Your task to perform on an android device: toggle pop-ups in chrome Image 0: 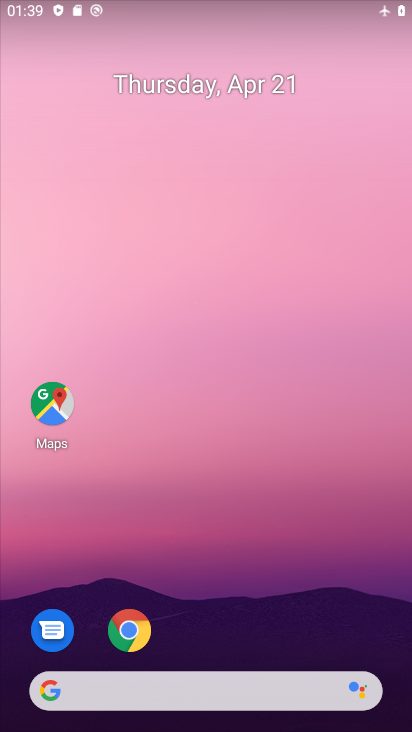
Step 0: click (139, 626)
Your task to perform on an android device: toggle pop-ups in chrome Image 1: 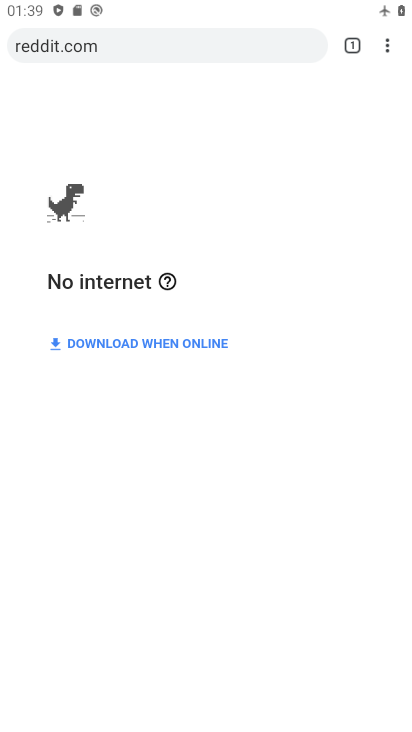
Step 1: click (397, 50)
Your task to perform on an android device: toggle pop-ups in chrome Image 2: 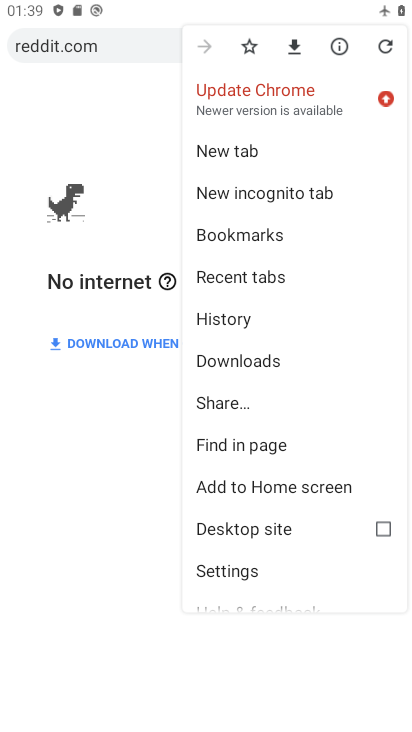
Step 2: click (217, 570)
Your task to perform on an android device: toggle pop-ups in chrome Image 3: 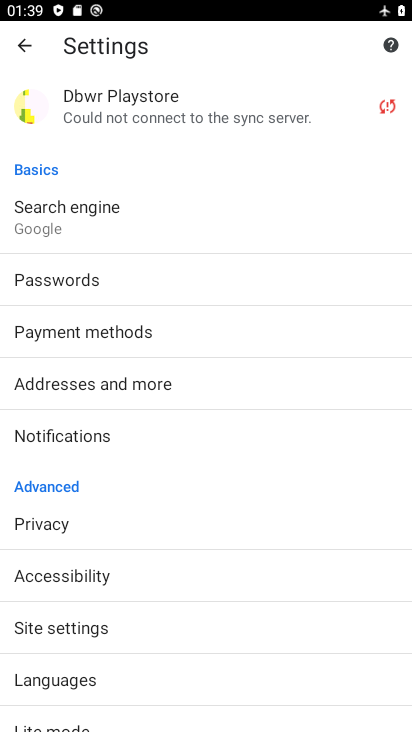
Step 3: click (173, 633)
Your task to perform on an android device: toggle pop-ups in chrome Image 4: 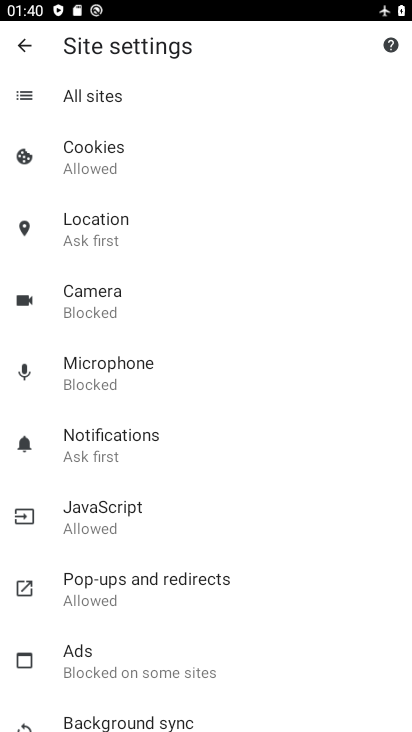
Step 4: click (178, 577)
Your task to perform on an android device: toggle pop-ups in chrome Image 5: 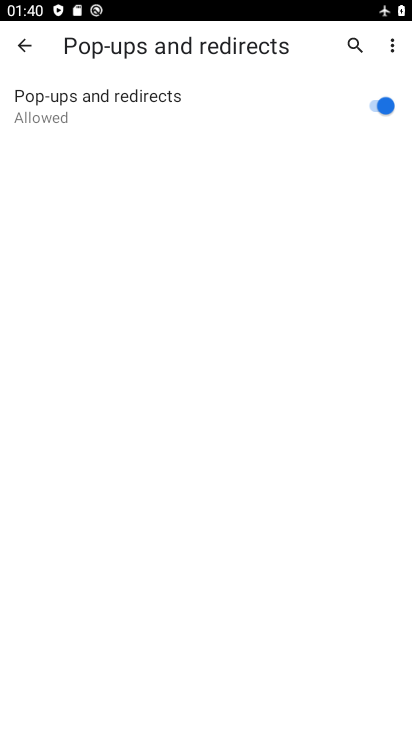
Step 5: click (362, 112)
Your task to perform on an android device: toggle pop-ups in chrome Image 6: 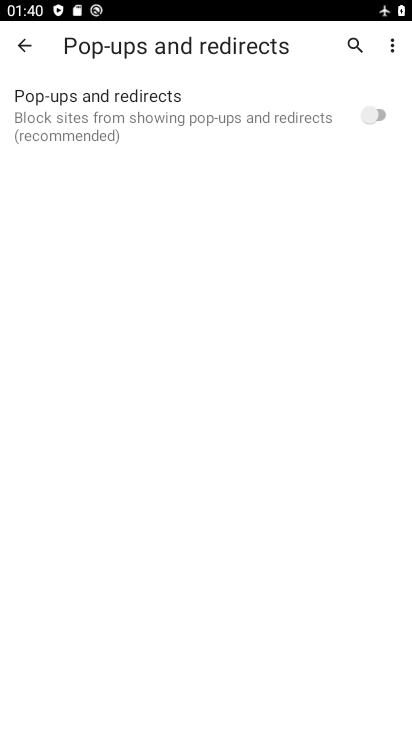
Step 6: task complete